Your task to perform on an android device: turn off translation in the chrome app Image 0: 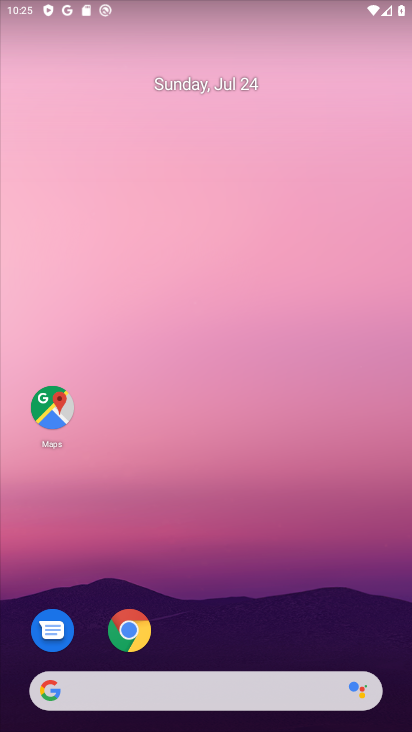
Step 0: press home button
Your task to perform on an android device: turn off translation in the chrome app Image 1: 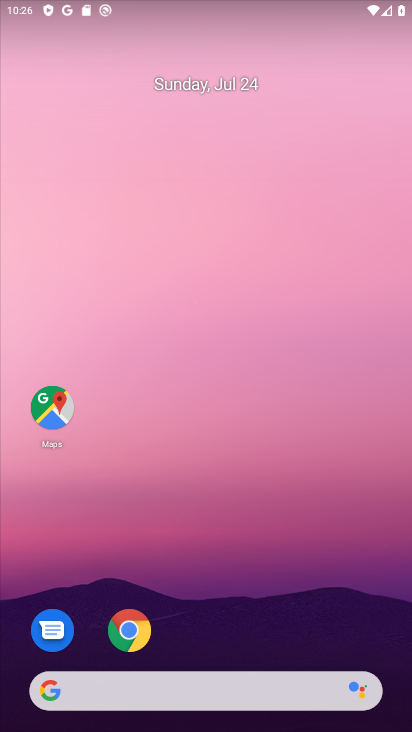
Step 1: click (144, 609)
Your task to perform on an android device: turn off translation in the chrome app Image 2: 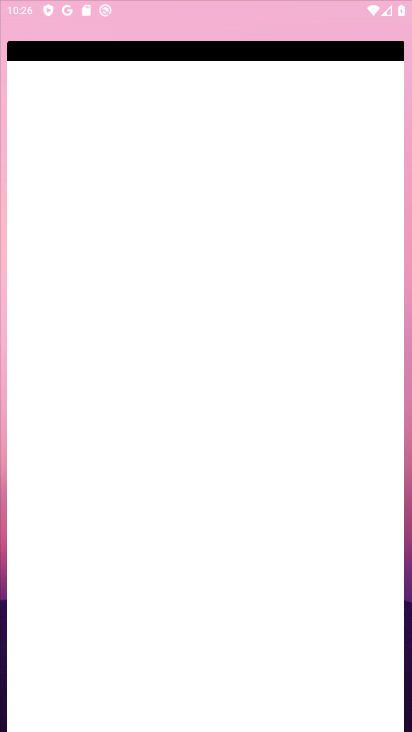
Step 2: click (133, 625)
Your task to perform on an android device: turn off translation in the chrome app Image 3: 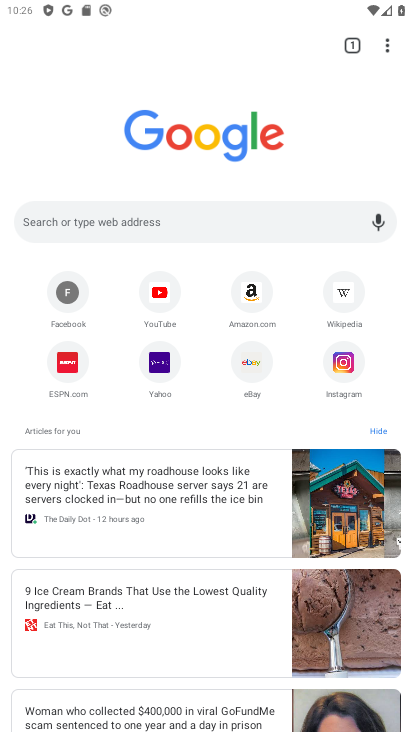
Step 3: click (385, 46)
Your task to perform on an android device: turn off translation in the chrome app Image 4: 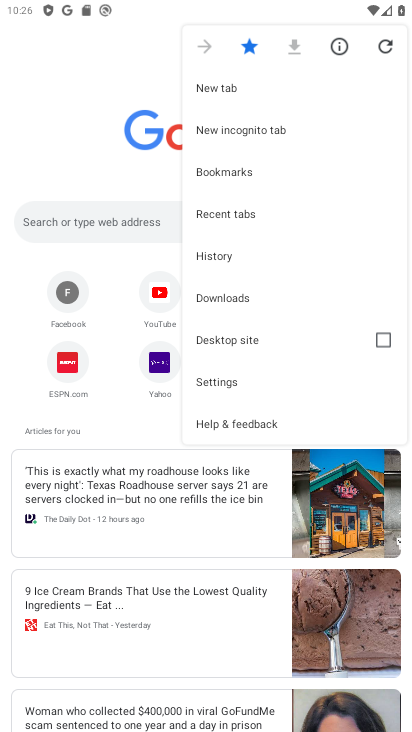
Step 4: click (227, 379)
Your task to perform on an android device: turn off translation in the chrome app Image 5: 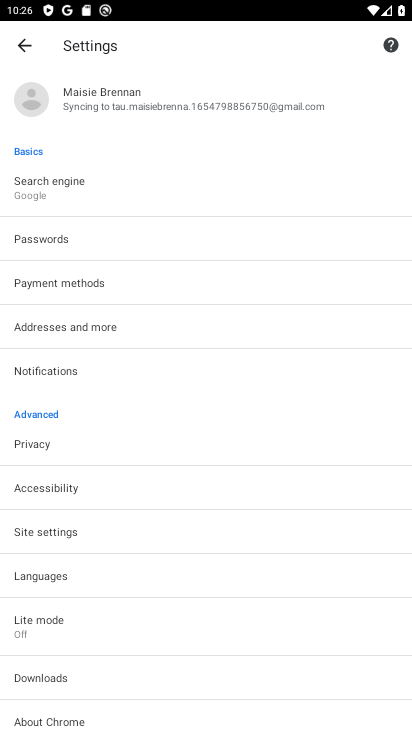
Step 5: drag from (157, 426) to (205, 185)
Your task to perform on an android device: turn off translation in the chrome app Image 6: 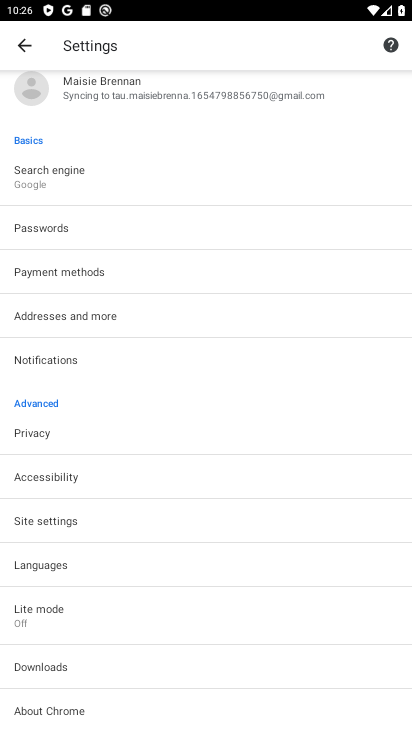
Step 6: click (54, 562)
Your task to perform on an android device: turn off translation in the chrome app Image 7: 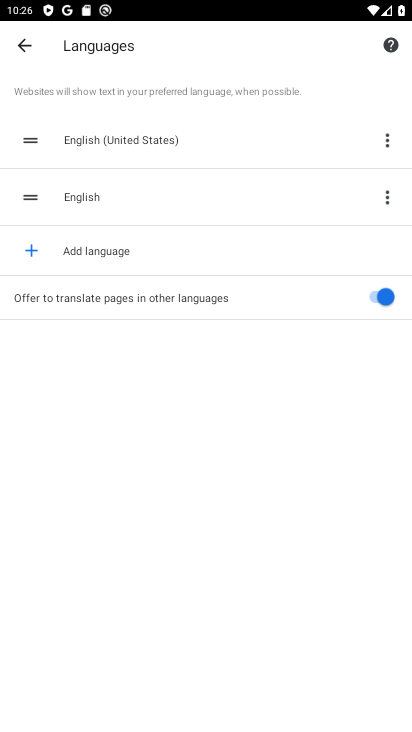
Step 7: click (381, 297)
Your task to perform on an android device: turn off translation in the chrome app Image 8: 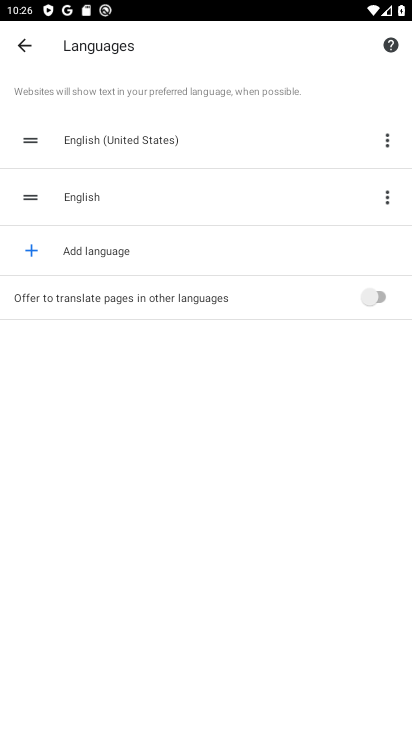
Step 8: task complete